Your task to perform on an android device: show emergency info Image 0: 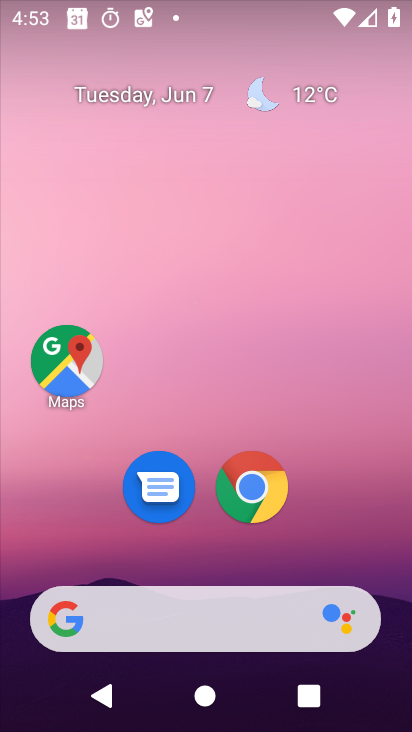
Step 0: drag from (190, 563) to (229, 78)
Your task to perform on an android device: show emergency info Image 1: 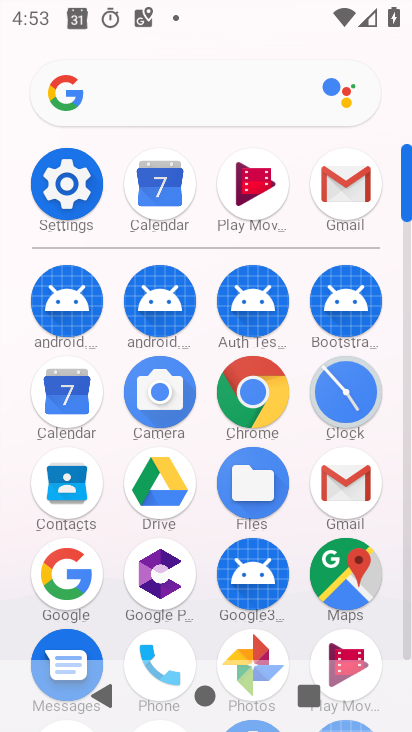
Step 1: click (52, 180)
Your task to perform on an android device: show emergency info Image 2: 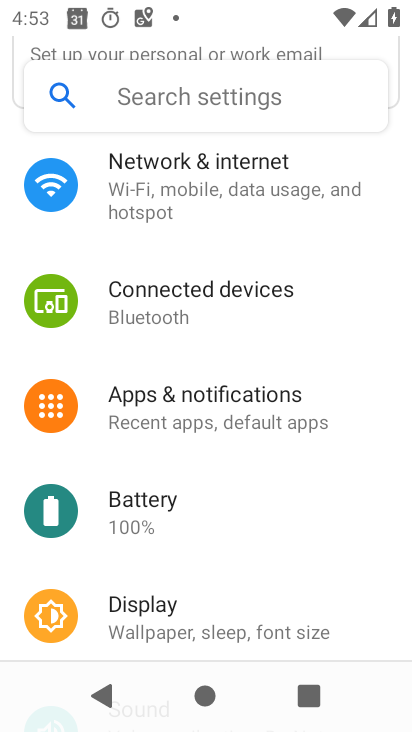
Step 2: drag from (216, 217) to (216, 638)
Your task to perform on an android device: show emergency info Image 3: 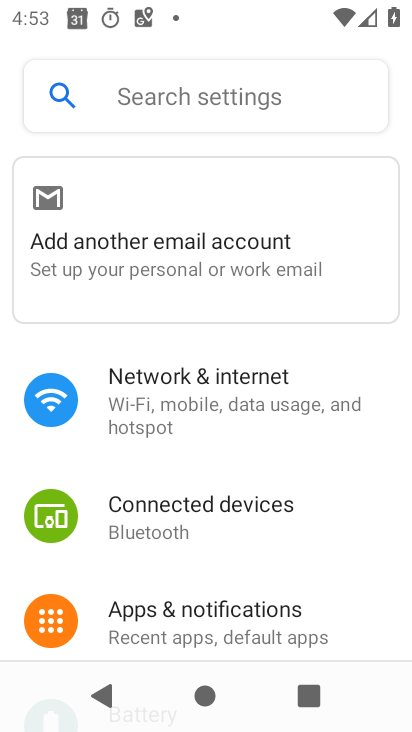
Step 3: drag from (192, 615) to (223, 65)
Your task to perform on an android device: show emergency info Image 4: 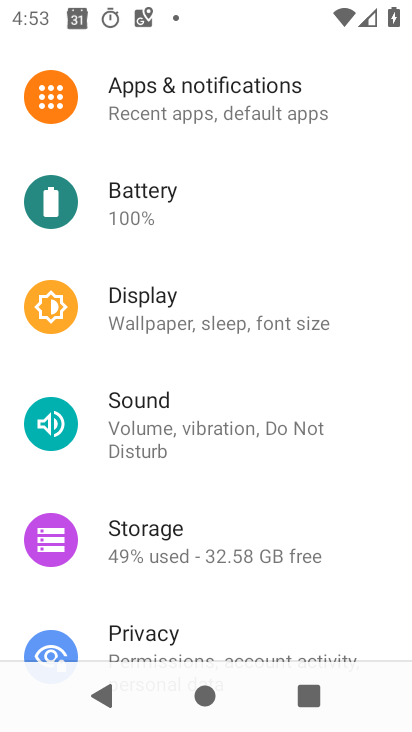
Step 4: drag from (159, 631) to (181, 38)
Your task to perform on an android device: show emergency info Image 5: 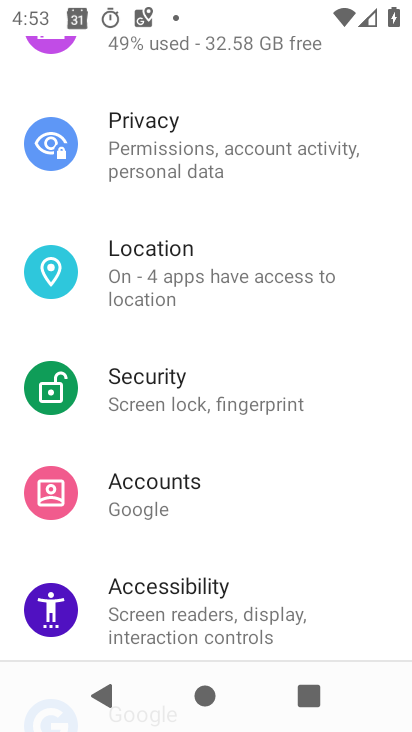
Step 5: drag from (189, 608) to (240, 21)
Your task to perform on an android device: show emergency info Image 6: 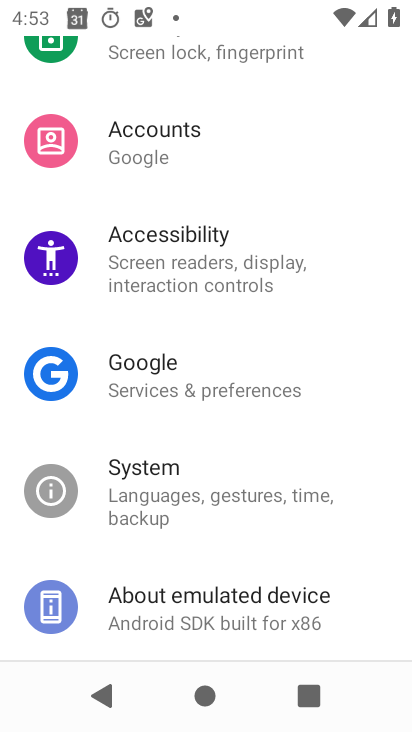
Step 6: click (204, 623)
Your task to perform on an android device: show emergency info Image 7: 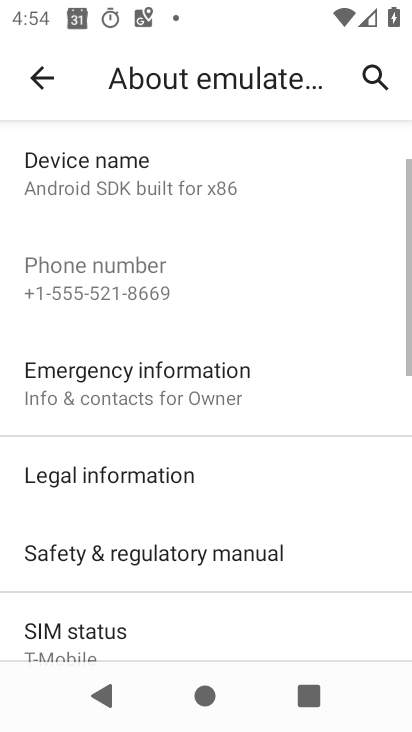
Step 7: click (198, 381)
Your task to perform on an android device: show emergency info Image 8: 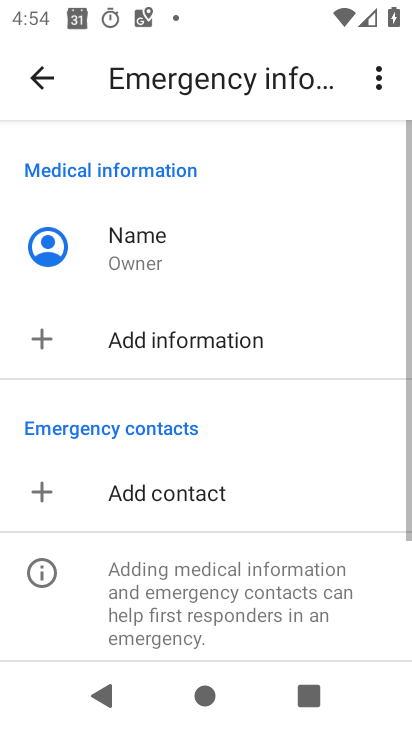
Step 8: task complete